Your task to perform on an android device: Search for vegetarian restaurants on Maps Image 0: 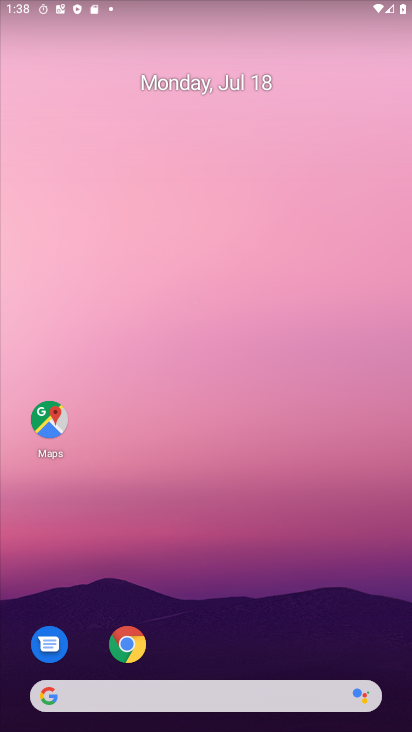
Step 0: click (46, 431)
Your task to perform on an android device: Search for vegetarian restaurants on Maps Image 1: 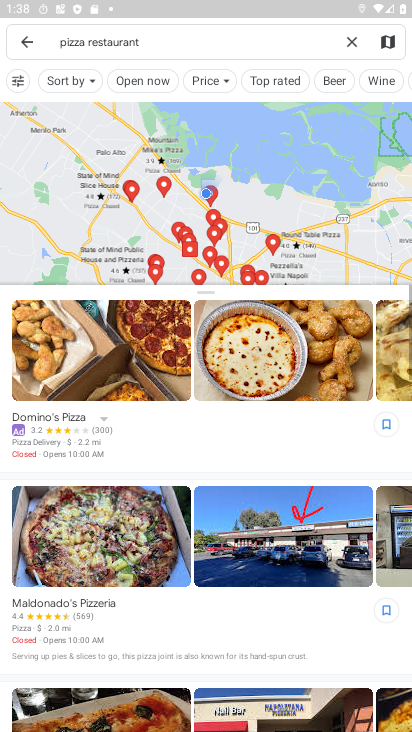
Step 1: click (348, 42)
Your task to perform on an android device: Search for vegetarian restaurants on Maps Image 2: 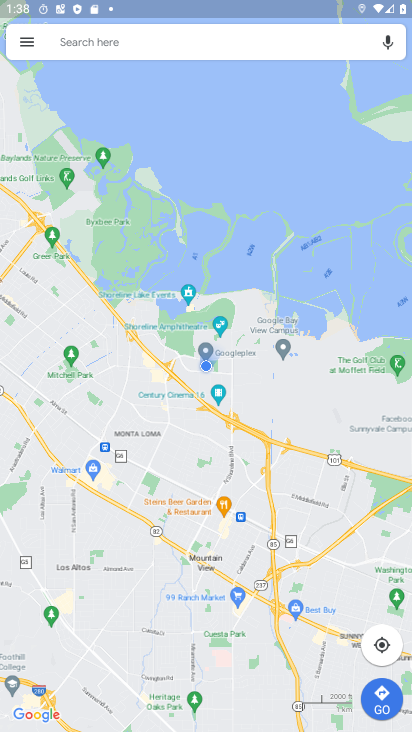
Step 2: click (292, 38)
Your task to perform on an android device: Search for vegetarian restaurants on Maps Image 3: 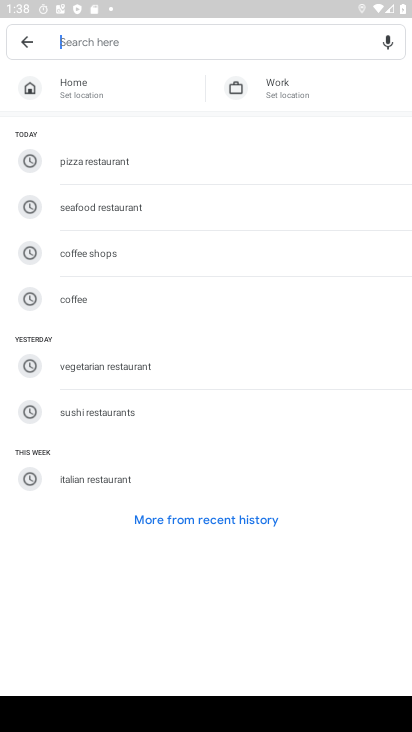
Step 3: type "vegetarian restaurants"
Your task to perform on an android device: Search for vegetarian restaurants on Maps Image 4: 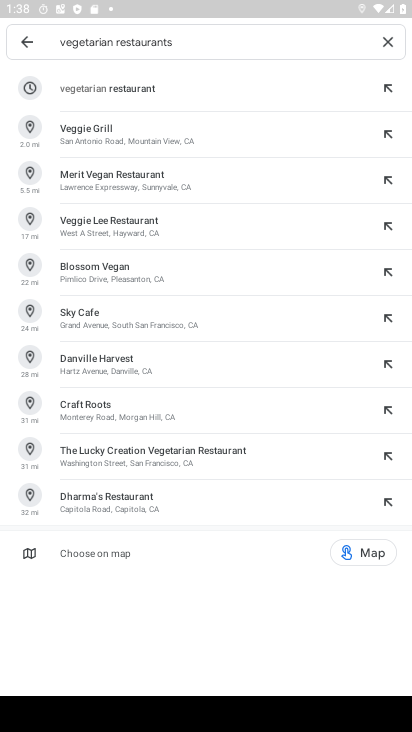
Step 4: click (128, 82)
Your task to perform on an android device: Search for vegetarian restaurants on Maps Image 5: 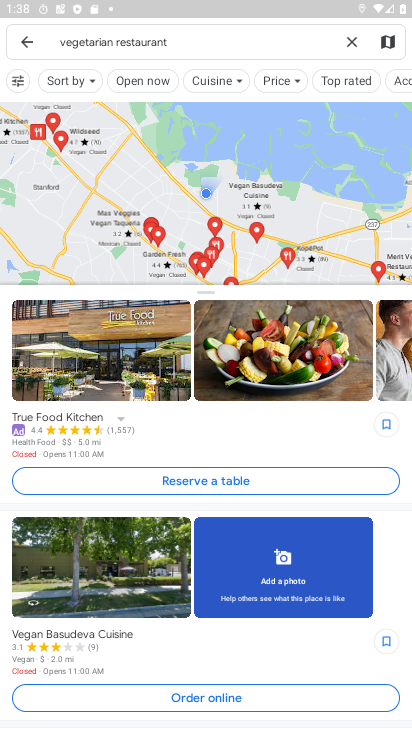
Step 5: task complete